Your task to perform on an android device: Set the phone to "Do not disturb". Image 0: 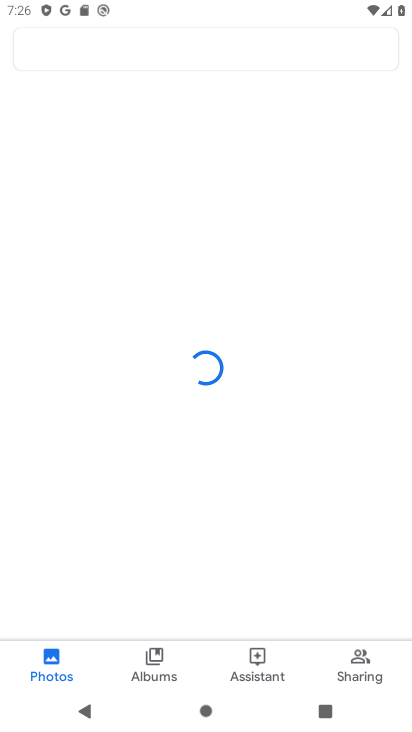
Step 0: press home button
Your task to perform on an android device: Set the phone to "Do not disturb". Image 1: 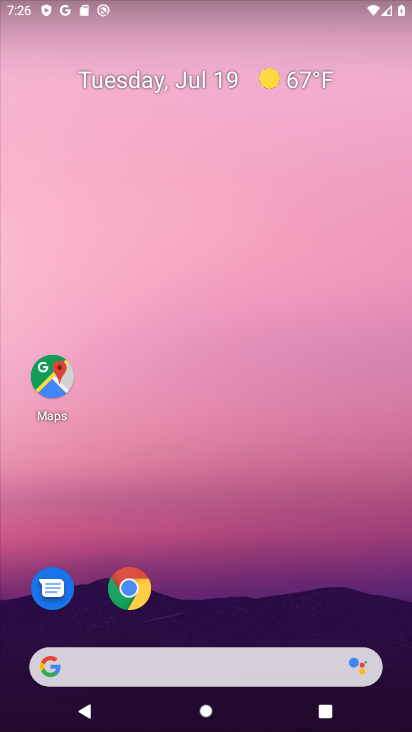
Step 1: drag from (325, 604) to (373, 105)
Your task to perform on an android device: Set the phone to "Do not disturb". Image 2: 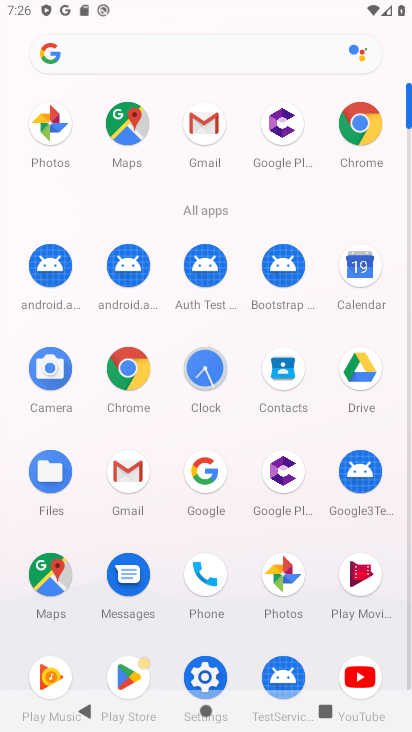
Step 2: drag from (392, 639) to (398, 533)
Your task to perform on an android device: Set the phone to "Do not disturb". Image 3: 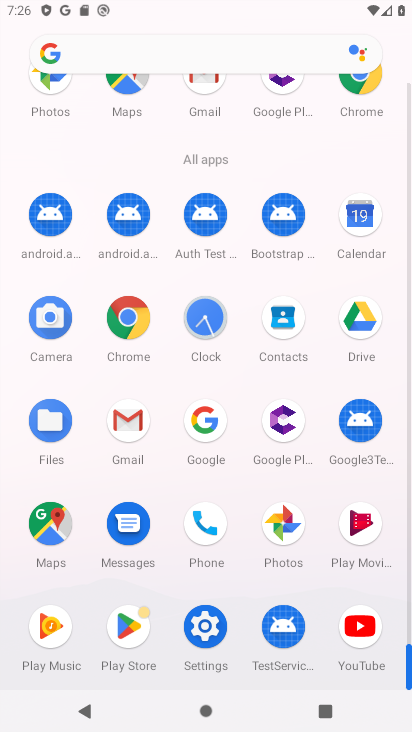
Step 3: click (197, 626)
Your task to perform on an android device: Set the phone to "Do not disturb". Image 4: 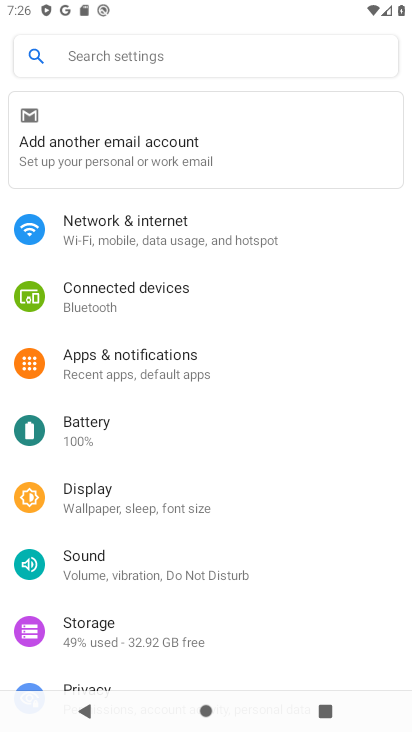
Step 4: click (220, 572)
Your task to perform on an android device: Set the phone to "Do not disturb". Image 5: 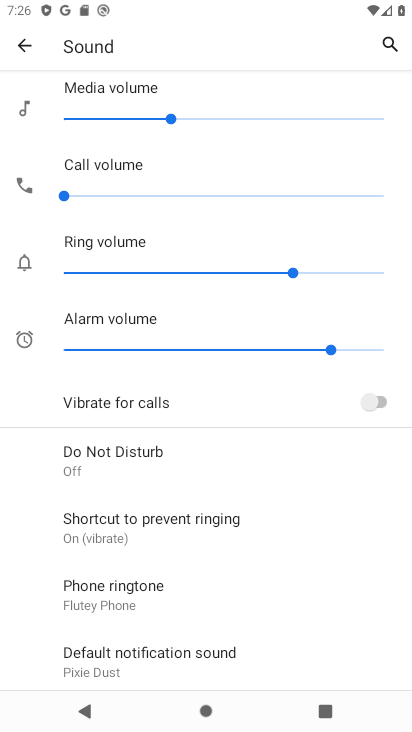
Step 5: click (139, 469)
Your task to perform on an android device: Set the phone to "Do not disturb". Image 6: 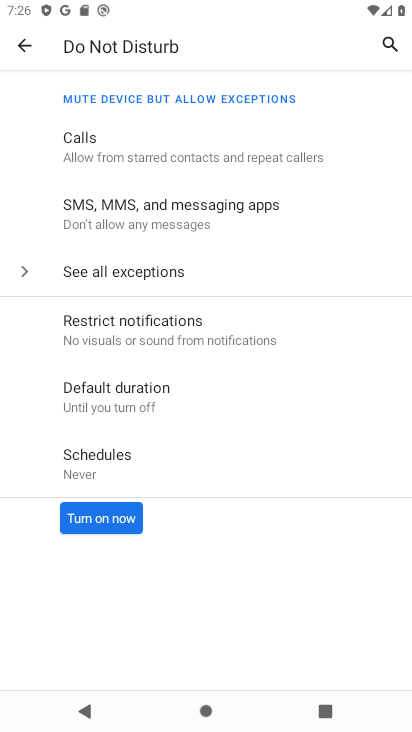
Step 6: click (132, 519)
Your task to perform on an android device: Set the phone to "Do not disturb". Image 7: 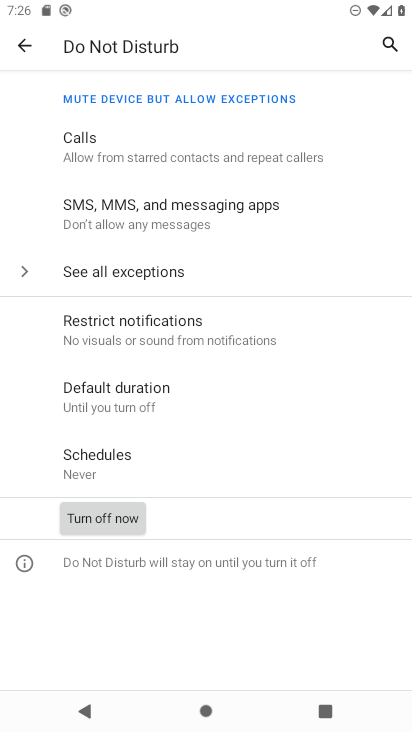
Step 7: task complete